Your task to perform on an android device: turn off smart reply in the gmail app Image 0: 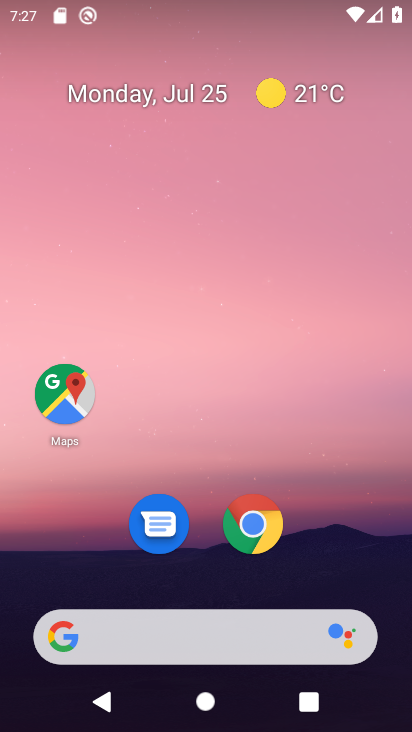
Step 0: drag from (235, 620) to (247, 312)
Your task to perform on an android device: turn off smart reply in the gmail app Image 1: 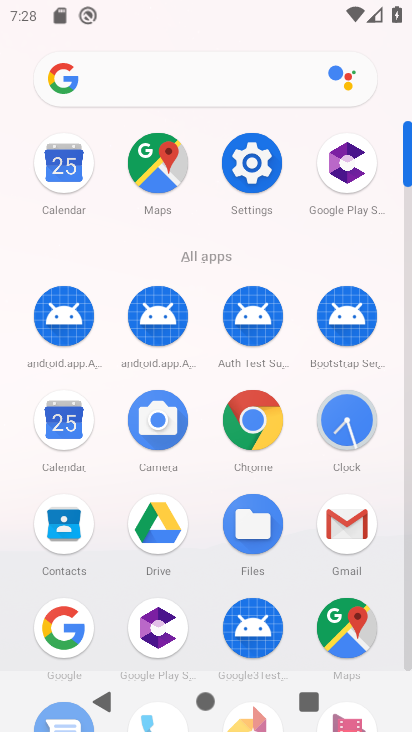
Step 1: click (348, 529)
Your task to perform on an android device: turn off smart reply in the gmail app Image 2: 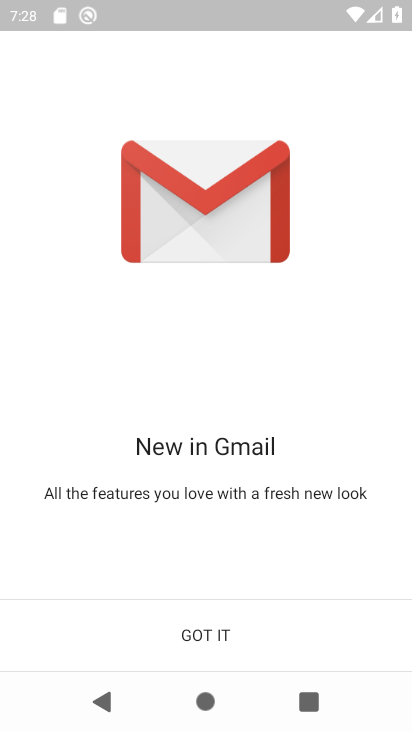
Step 2: click (196, 635)
Your task to perform on an android device: turn off smart reply in the gmail app Image 3: 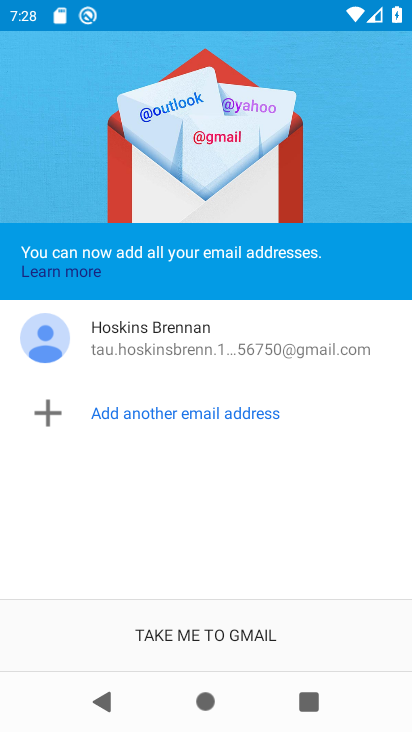
Step 3: click (221, 624)
Your task to perform on an android device: turn off smart reply in the gmail app Image 4: 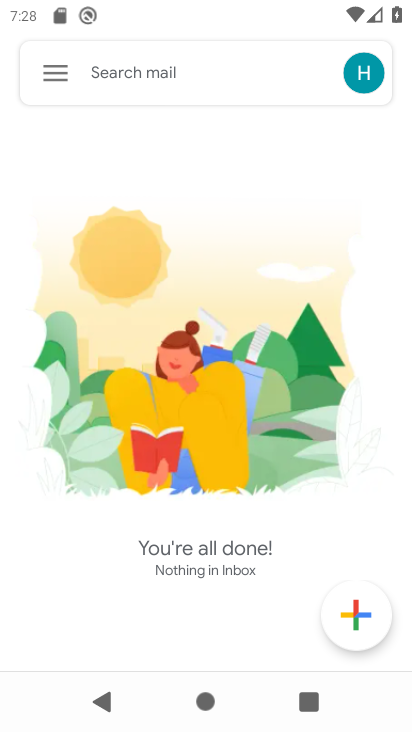
Step 4: click (56, 74)
Your task to perform on an android device: turn off smart reply in the gmail app Image 5: 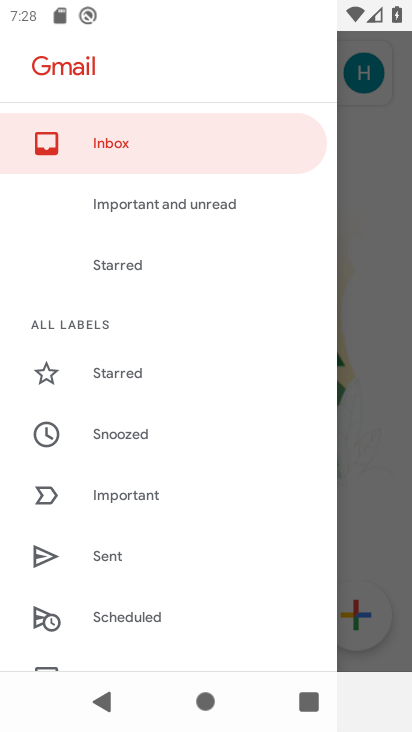
Step 5: drag from (177, 603) to (239, 149)
Your task to perform on an android device: turn off smart reply in the gmail app Image 6: 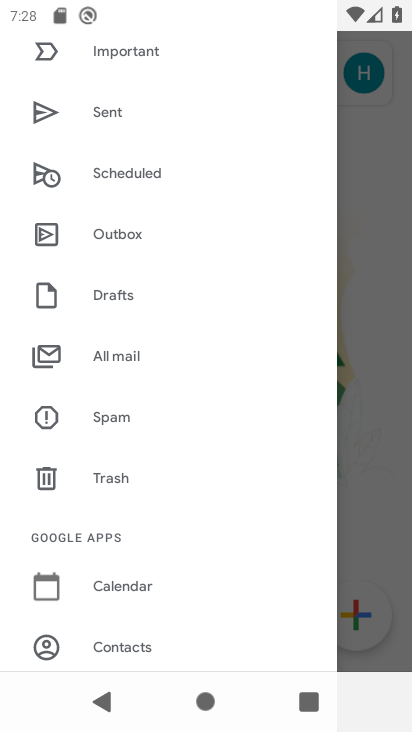
Step 6: drag from (173, 569) to (234, 300)
Your task to perform on an android device: turn off smart reply in the gmail app Image 7: 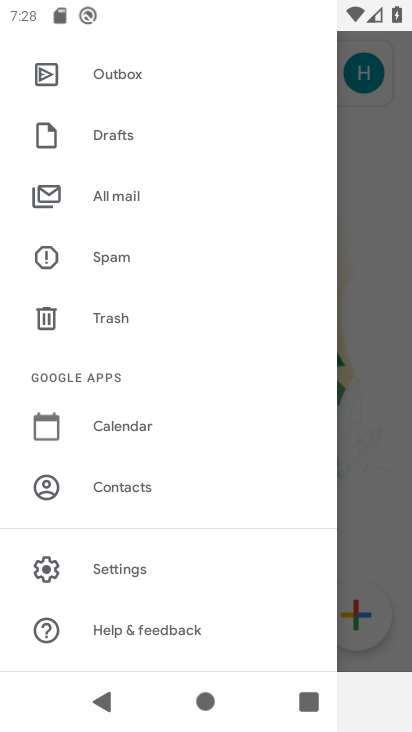
Step 7: click (115, 580)
Your task to perform on an android device: turn off smart reply in the gmail app Image 8: 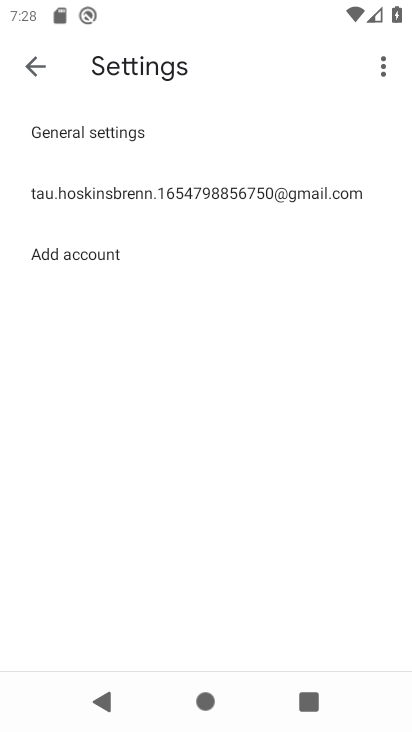
Step 8: click (213, 192)
Your task to perform on an android device: turn off smart reply in the gmail app Image 9: 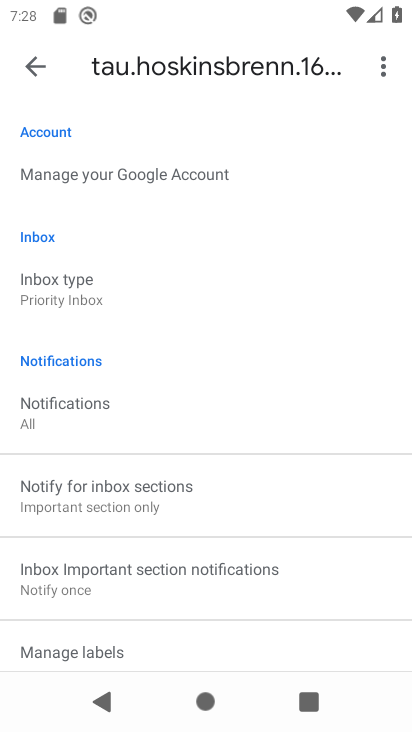
Step 9: drag from (238, 619) to (289, 222)
Your task to perform on an android device: turn off smart reply in the gmail app Image 10: 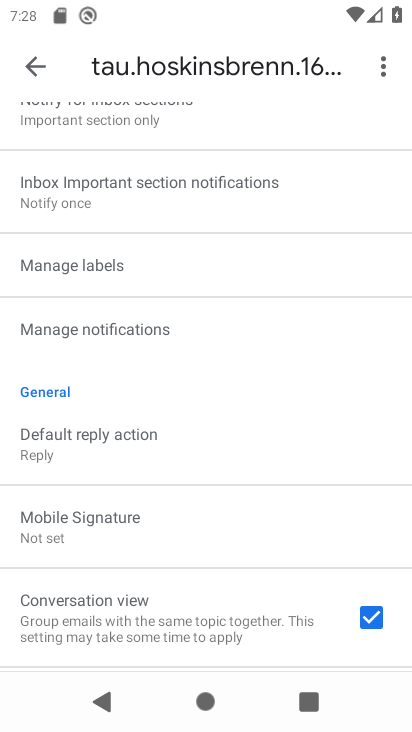
Step 10: drag from (228, 610) to (275, 237)
Your task to perform on an android device: turn off smart reply in the gmail app Image 11: 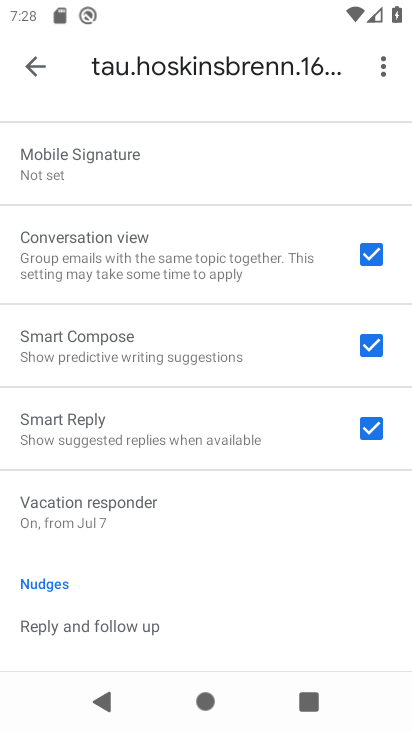
Step 11: click (372, 426)
Your task to perform on an android device: turn off smart reply in the gmail app Image 12: 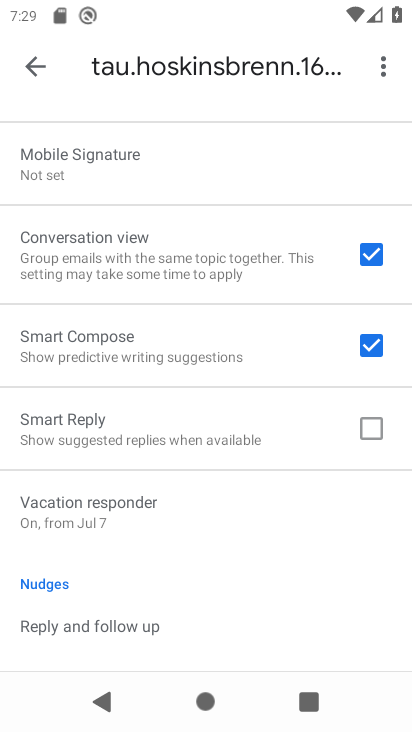
Step 12: task complete